Your task to perform on an android device: set the stopwatch Image 0: 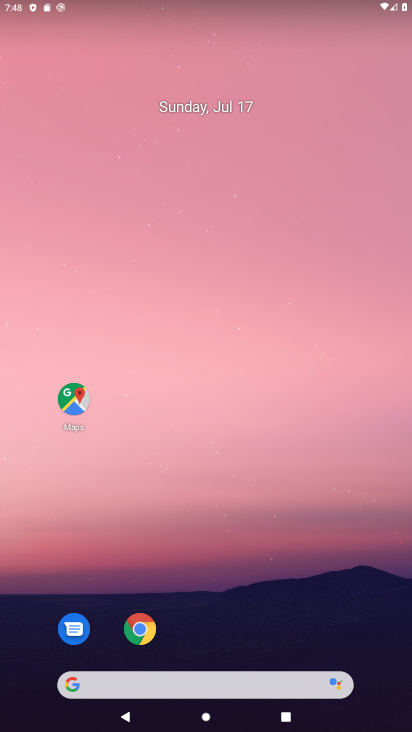
Step 0: drag from (339, 630) to (226, 86)
Your task to perform on an android device: set the stopwatch Image 1: 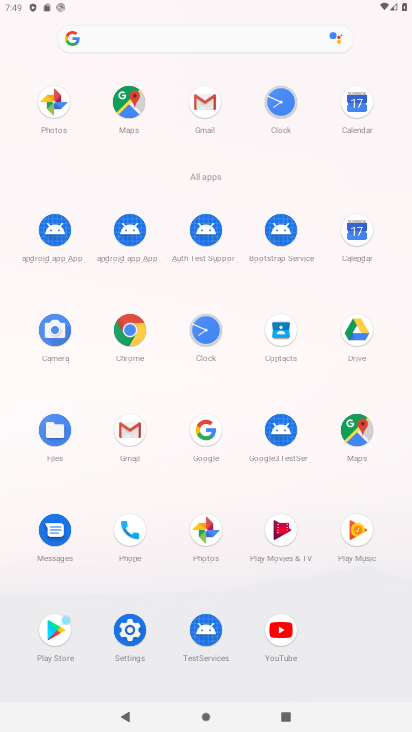
Step 1: click (215, 328)
Your task to perform on an android device: set the stopwatch Image 2: 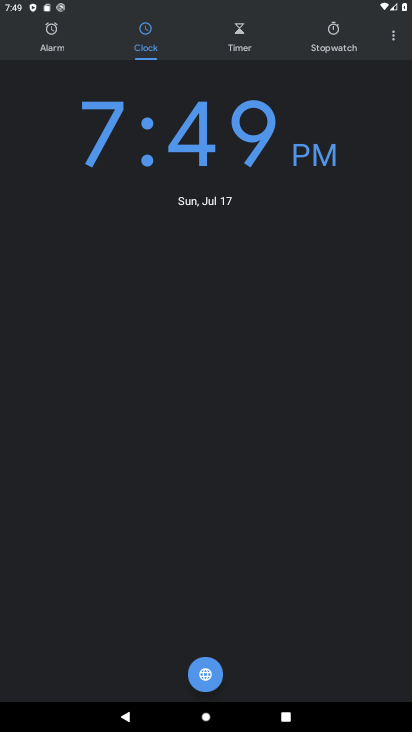
Step 2: click (338, 5)
Your task to perform on an android device: set the stopwatch Image 3: 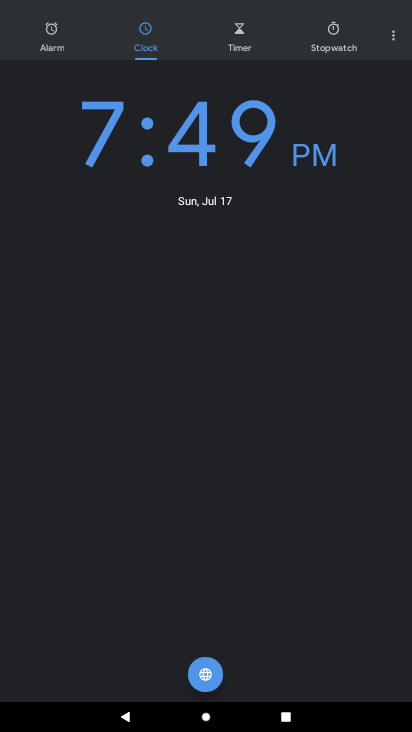
Step 3: click (331, 28)
Your task to perform on an android device: set the stopwatch Image 4: 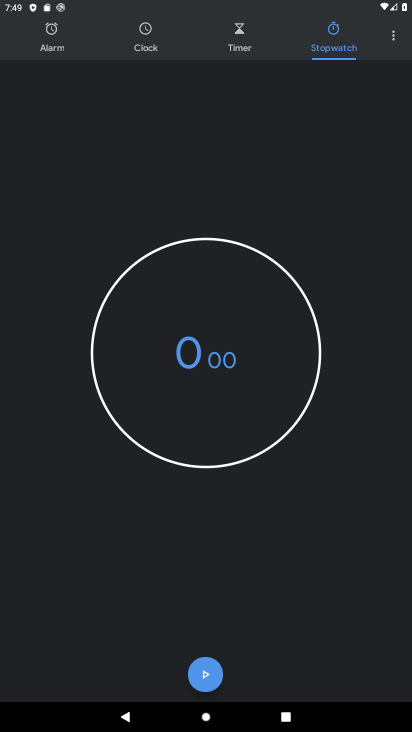
Step 4: click (213, 672)
Your task to perform on an android device: set the stopwatch Image 5: 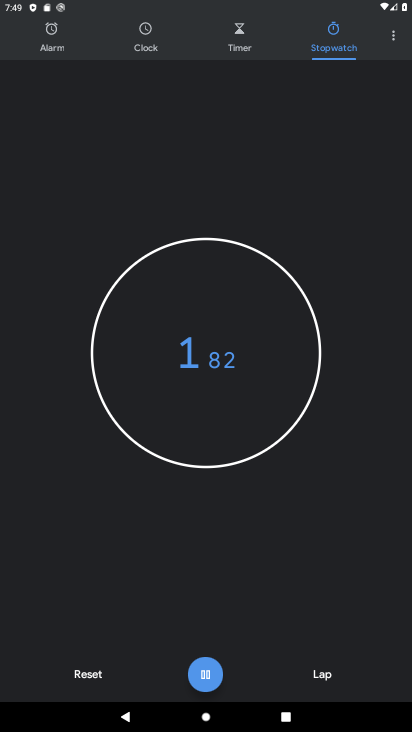
Step 5: click (214, 667)
Your task to perform on an android device: set the stopwatch Image 6: 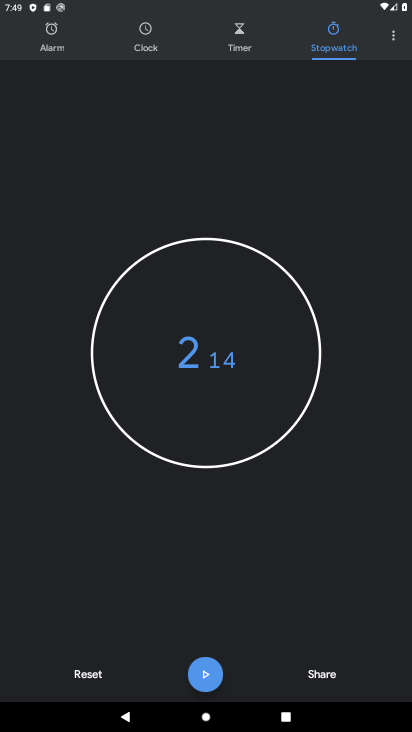
Step 6: task complete